Your task to perform on an android device: set the timer Image 0: 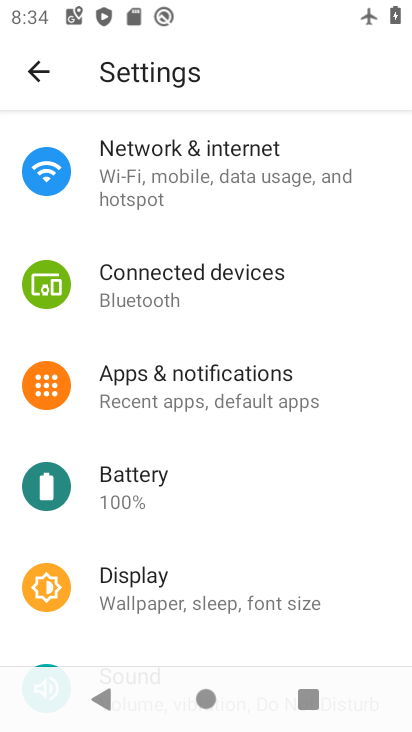
Step 0: press home button
Your task to perform on an android device: set the timer Image 1: 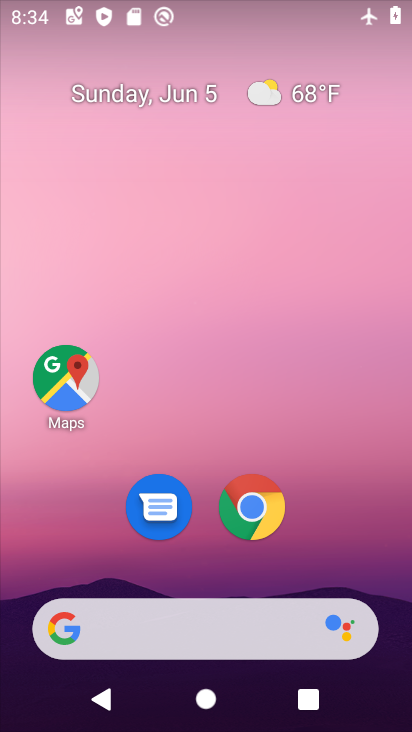
Step 1: drag from (206, 529) to (246, 133)
Your task to perform on an android device: set the timer Image 2: 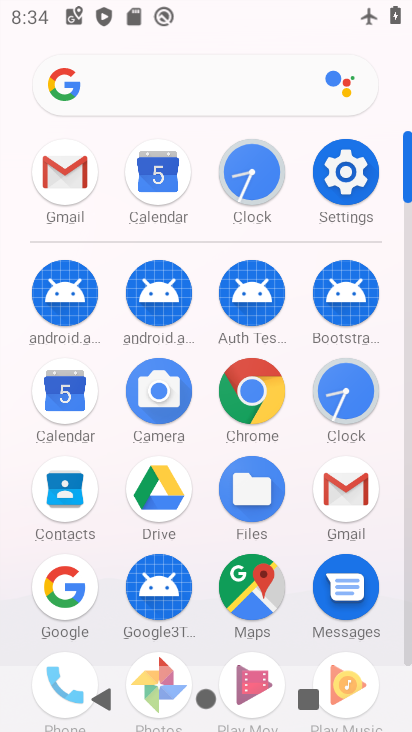
Step 2: click (246, 194)
Your task to perform on an android device: set the timer Image 3: 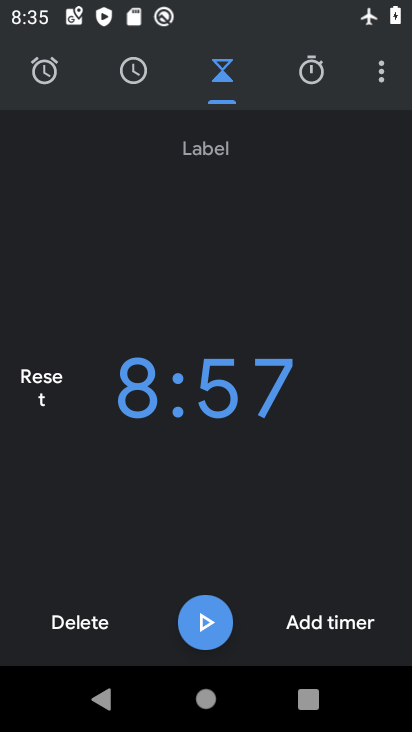
Step 3: click (93, 629)
Your task to perform on an android device: set the timer Image 4: 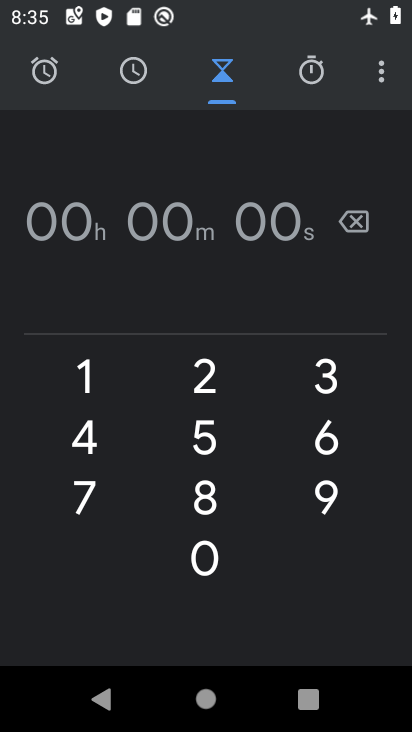
Step 4: click (94, 443)
Your task to perform on an android device: set the timer Image 5: 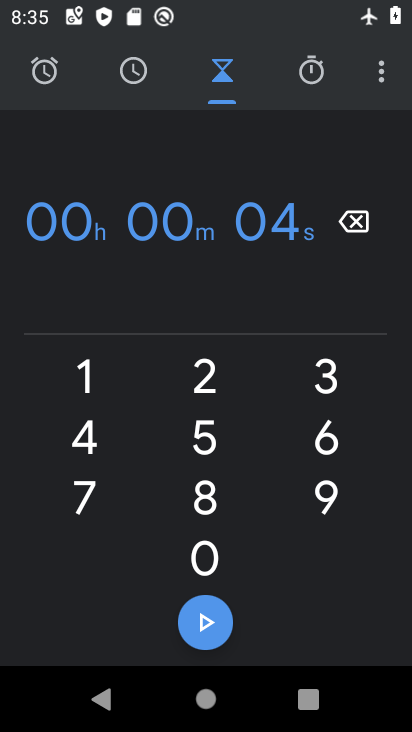
Step 5: click (217, 442)
Your task to perform on an android device: set the timer Image 6: 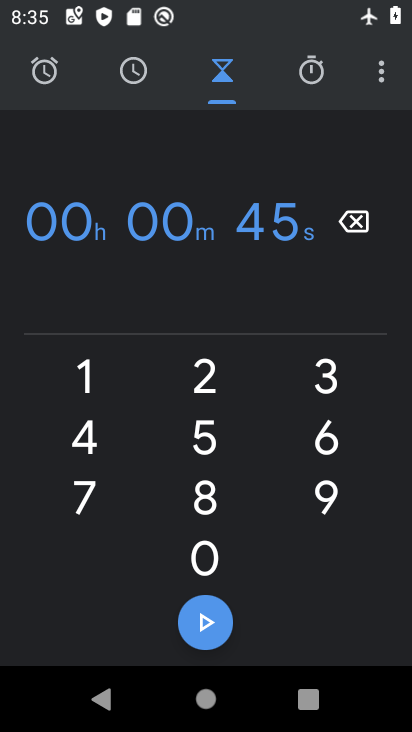
Step 6: click (323, 385)
Your task to perform on an android device: set the timer Image 7: 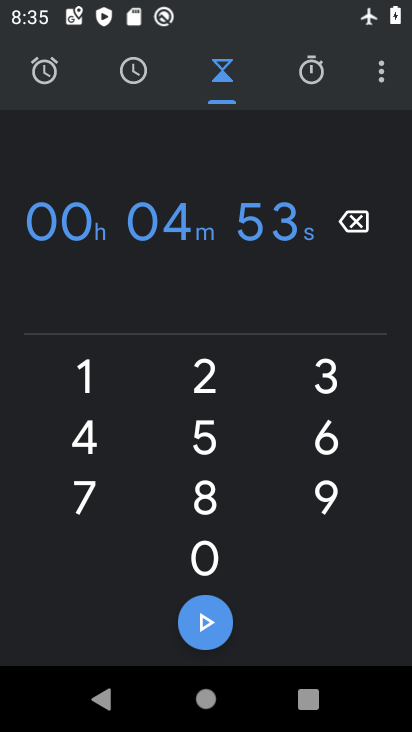
Step 7: click (227, 621)
Your task to perform on an android device: set the timer Image 8: 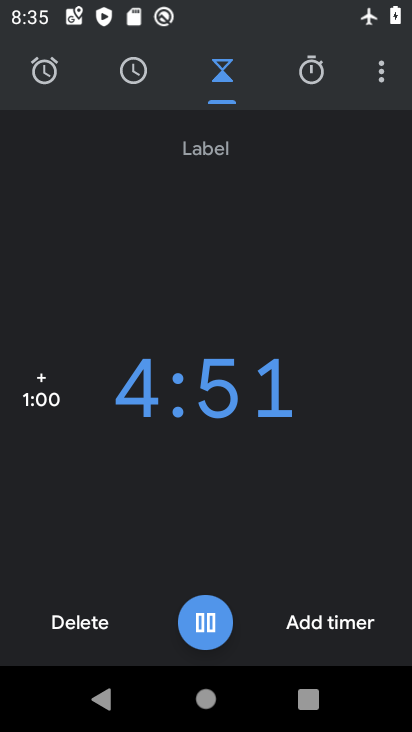
Step 8: task complete